Your task to perform on an android device: Go to accessibility settings Image 0: 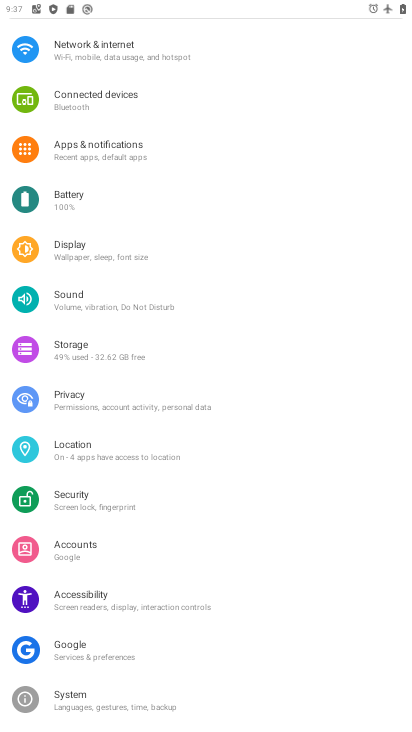
Step 0: click (108, 595)
Your task to perform on an android device: Go to accessibility settings Image 1: 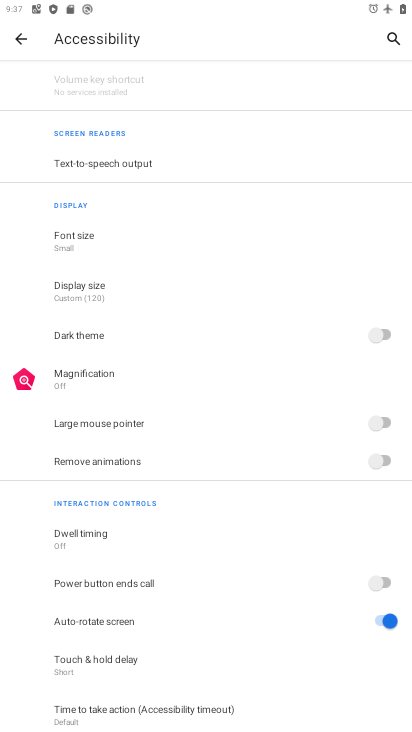
Step 1: task complete